Your task to perform on an android device: turn vacation reply on in the gmail app Image 0: 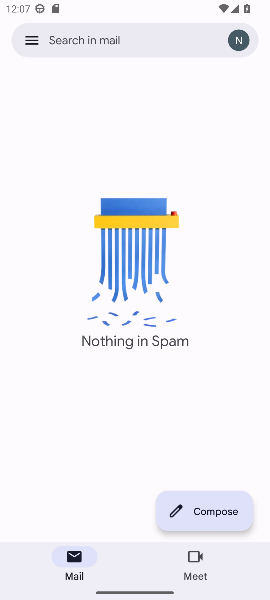
Step 0: press home button
Your task to perform on an android device: turn vacation reply on in the gmail app Image 1: 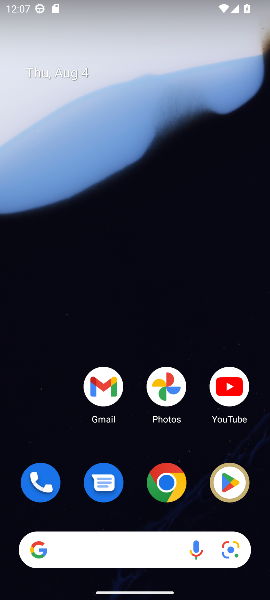
Step 1: click (98, 412)
Your task to perform on an android device: turn vacation reply on in the gmail app Image 2: 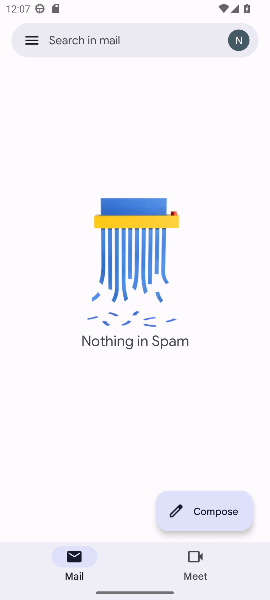
Step 2: click (20, 44)
Your task to perform on an android device: turn vacation reply on in the gmail app Image 3: 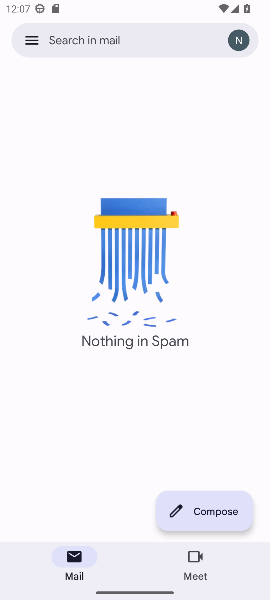
Step 3: click (27, 46)
Your task to perform on an android device: turn vacation reply on in the gmail app Image 4: 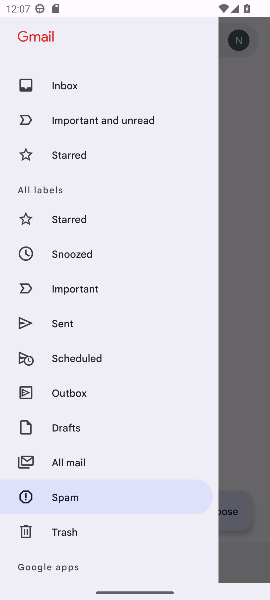
Step 4: drag from (106, 534) to (116, 253)
Your task to perform on an android device: turn vacation reply on in the gmail app Image 5: 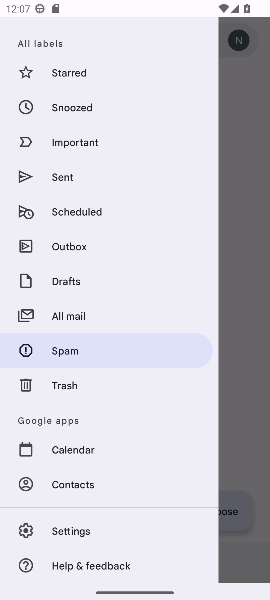
Step 5: click (80, 522)
Your task to perform on an android device: turn vacation reply on in the gmail app Image 6: 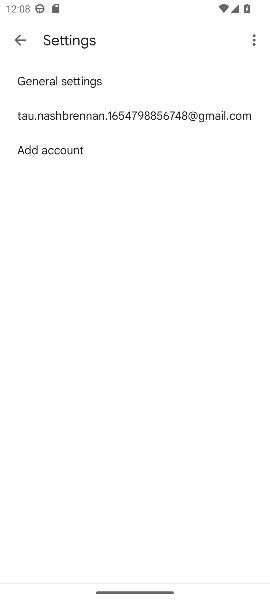
Step 6: click (99, 122)
Your task to perform on an android device: turn vacation reply on in the gmail app Image 7: 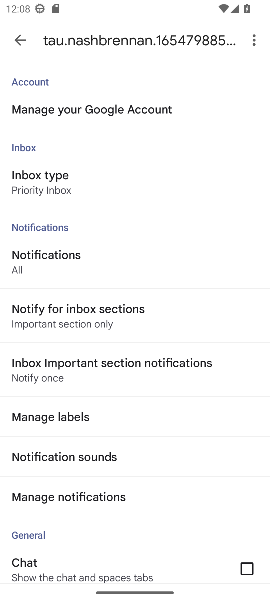
Step 7: drag from (102, 510) to (153, 272)
Your task to perform on an android device: turn vacation reply on in the gmail app Image 8: 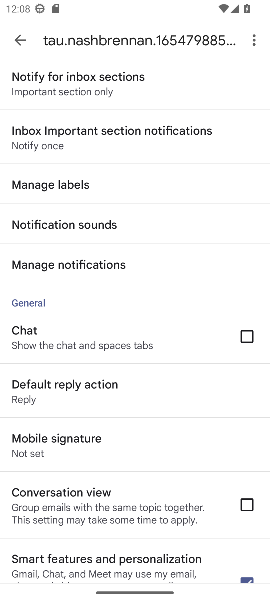
Step 8: drag from (119, 542) to (127, 267)
Your task to perform on an android device: turn vacation reply on in the gmail app Image 9: 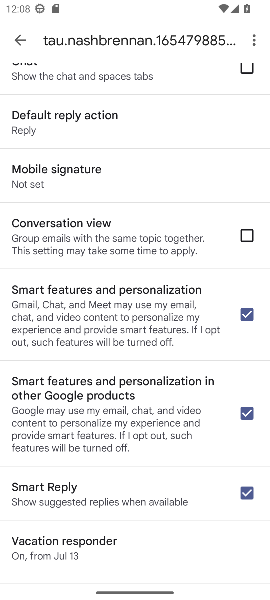
Step 9: click (108, 529)
Your task to perform on an android device: turn vacation reply on in the gmail app Image 10: 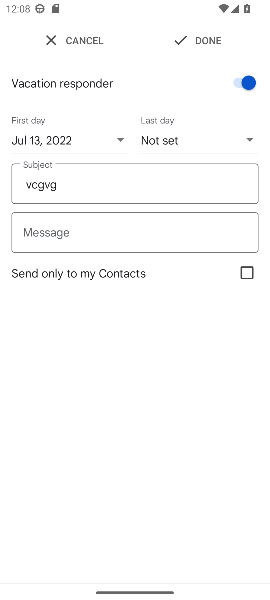
Step 10: task complete